Your task to perform on an android device: Is it going to rain this weekend? Image 0: 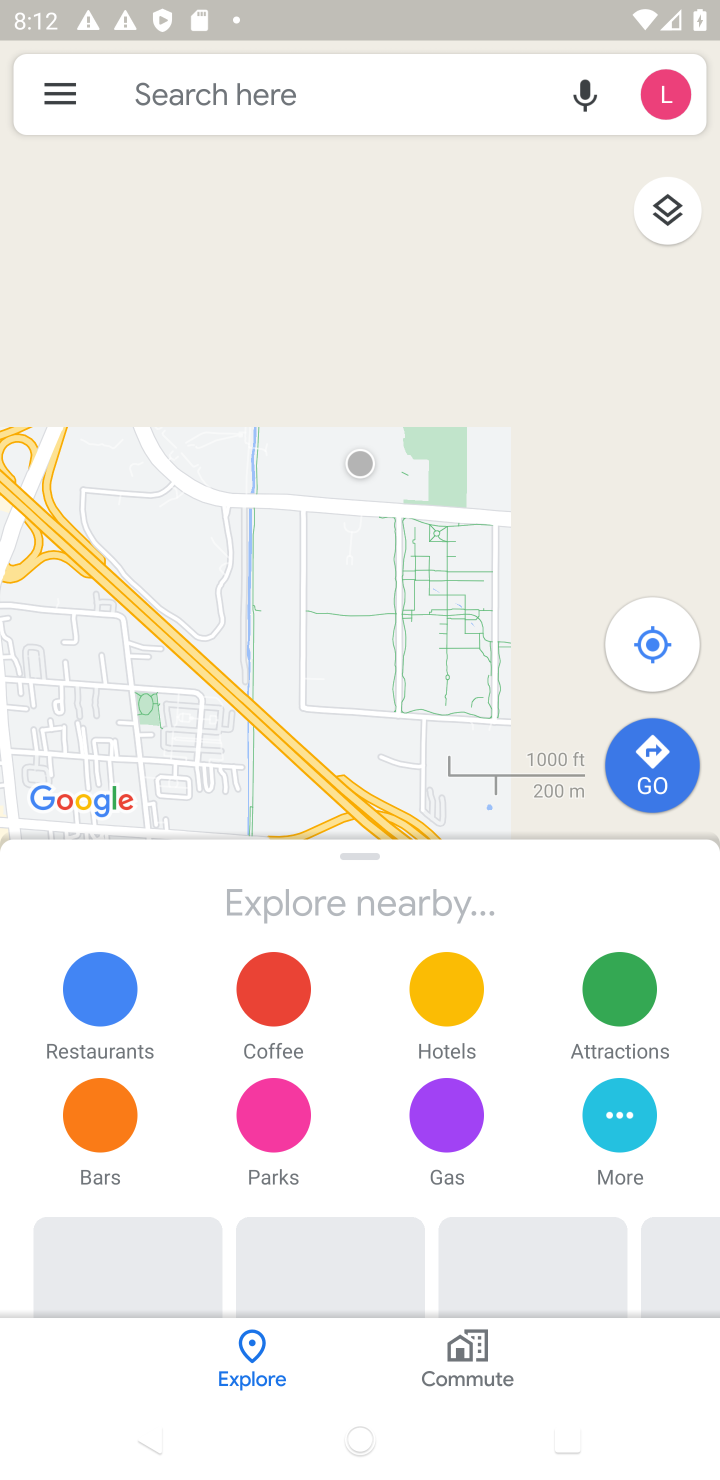
Step 0: press home button
Your task to perform on an android device: Is it going to rain this weekend? Image 1: 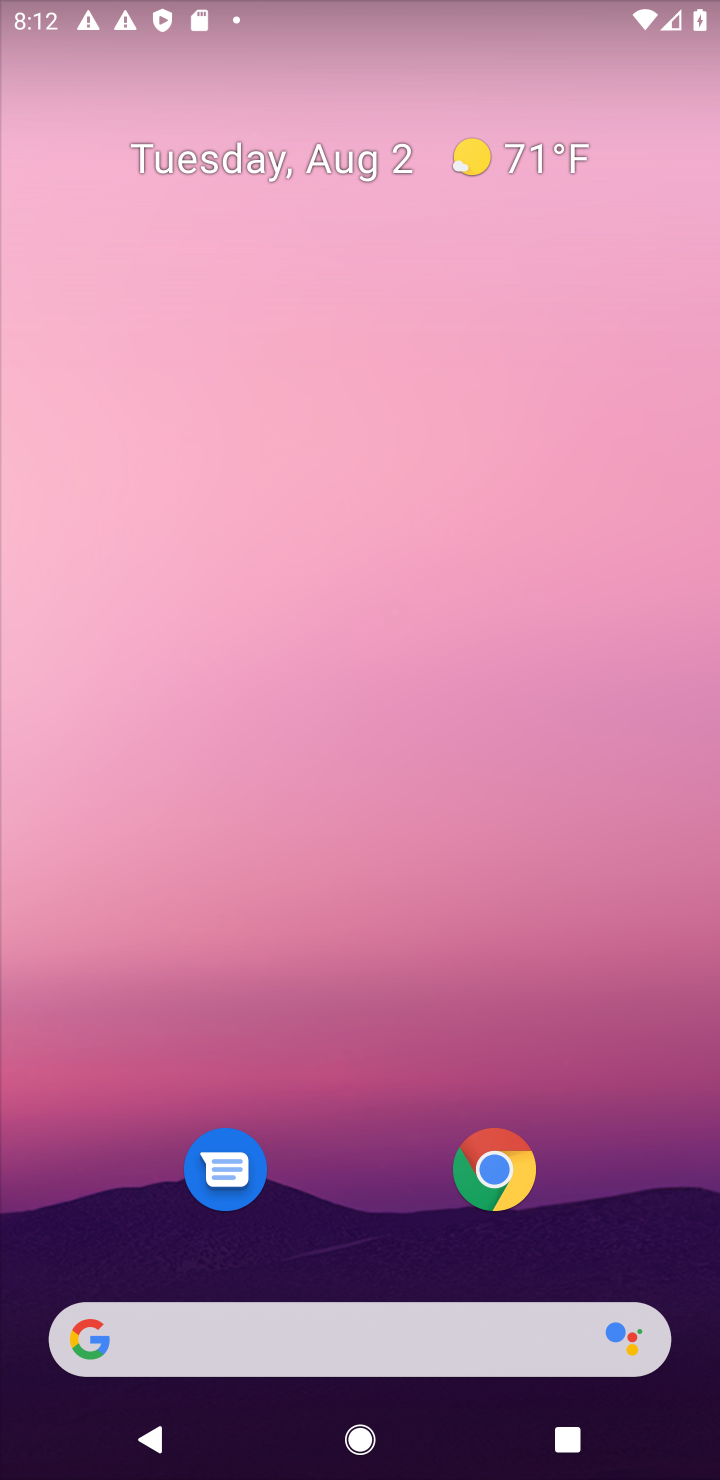
Step 1: click (536, 158)
Your task to perform on an android device: Is it going to rain this weekend? Image 2: 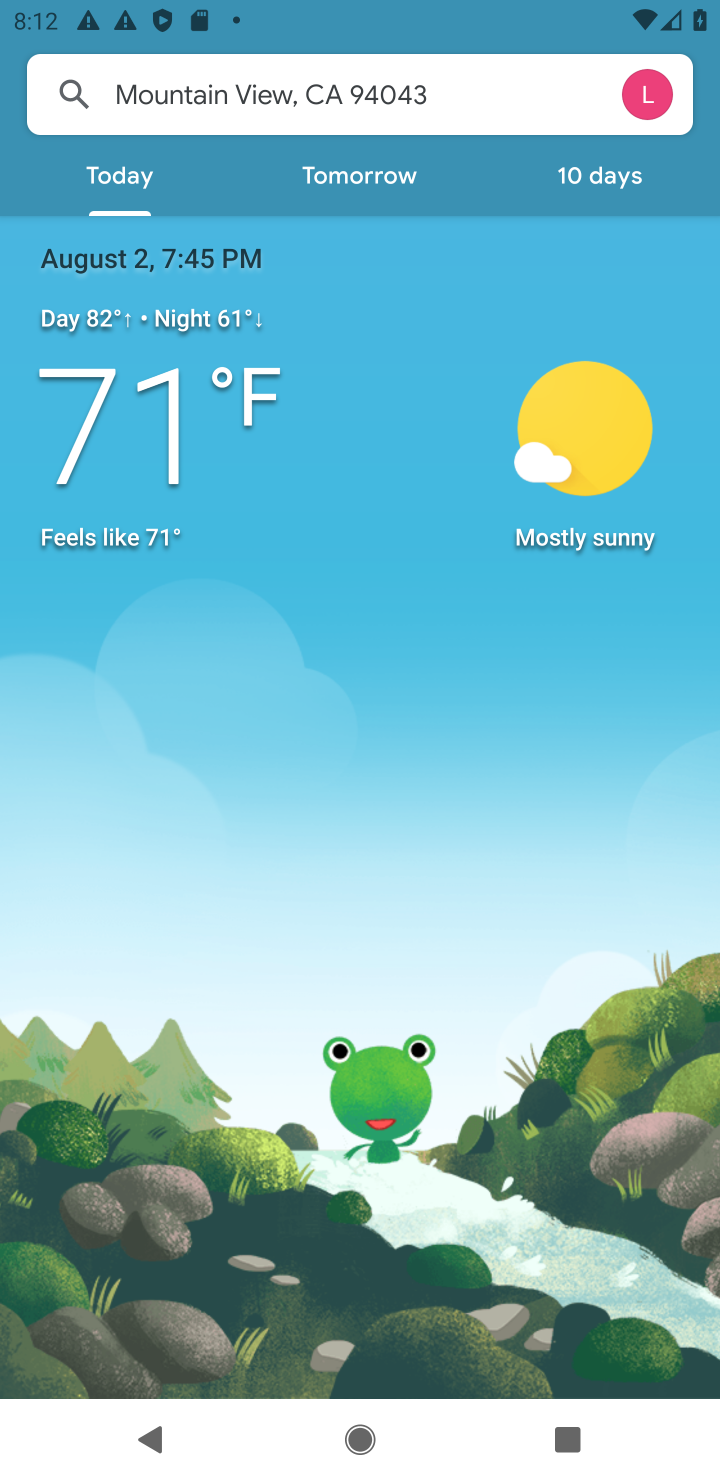
Step 2: click (591, 179)
Your task to perform on an android device: Is it going to rain this weekend? Image 3: 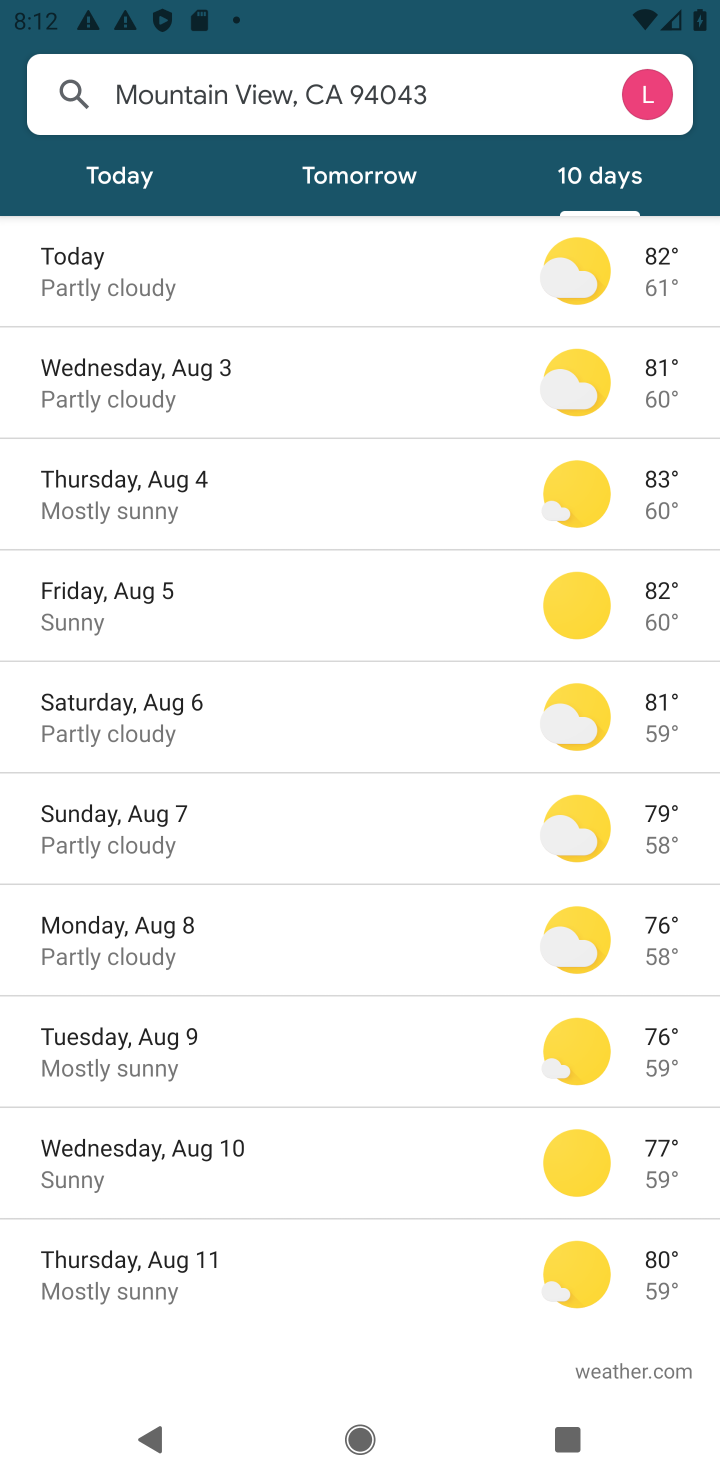
Step 3: click (152, 696)
Your task to perform on an android device: Is it going to rain this weekend? Image 4: 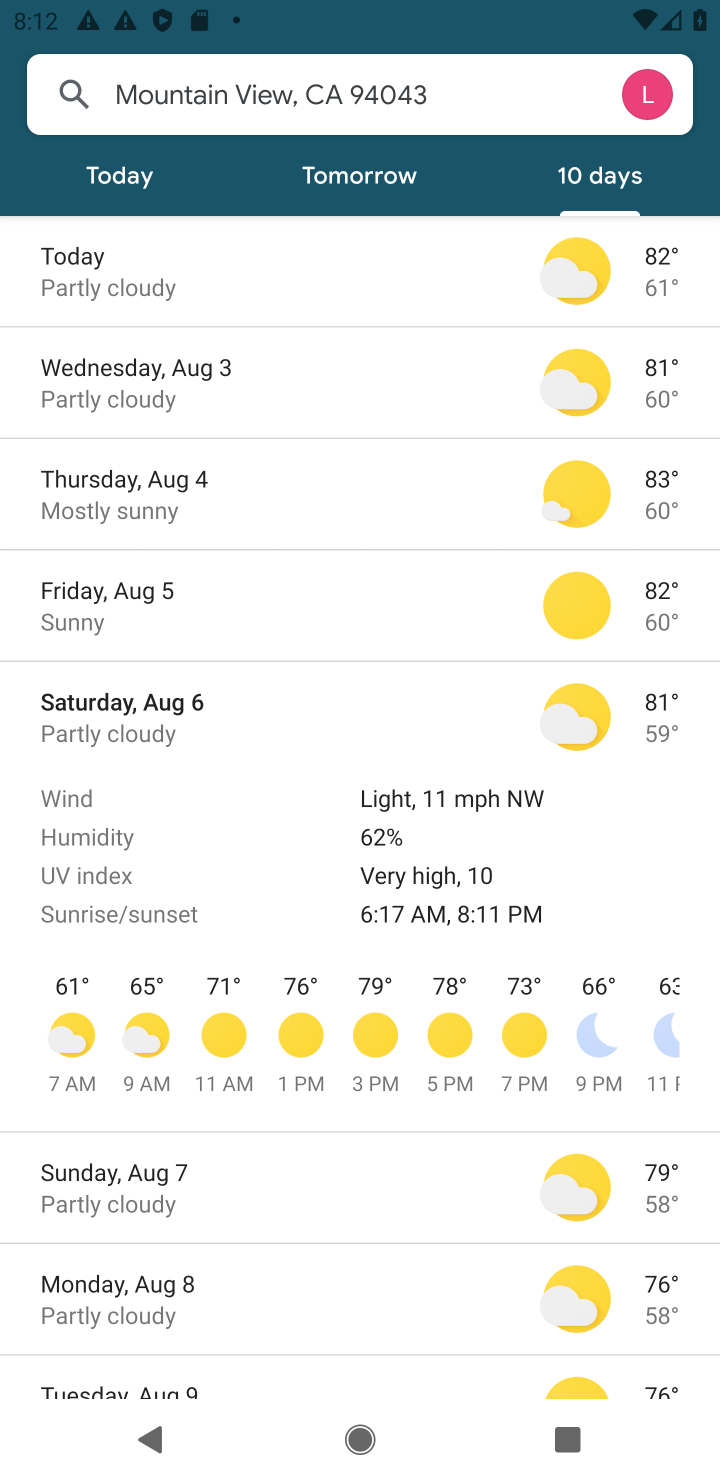
Step 4: task complete